Your task to perform on an android device: Open Yahoo.com Image 0: 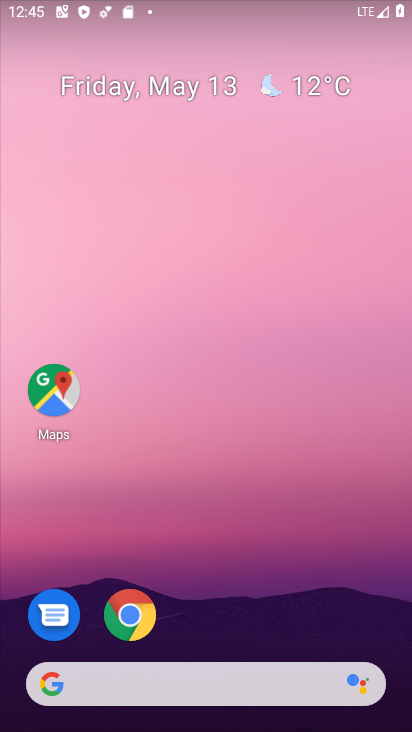
Step 0: click (117, 610)
Your task to perform on an android device: Open Yahoo.com Image 1: 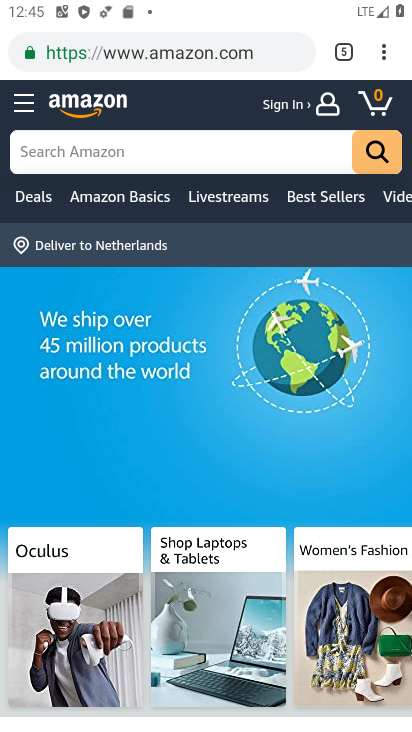
Step 1: click (338, 51)
Your task to perform on an android device: Open Yahoo.com Image 2: 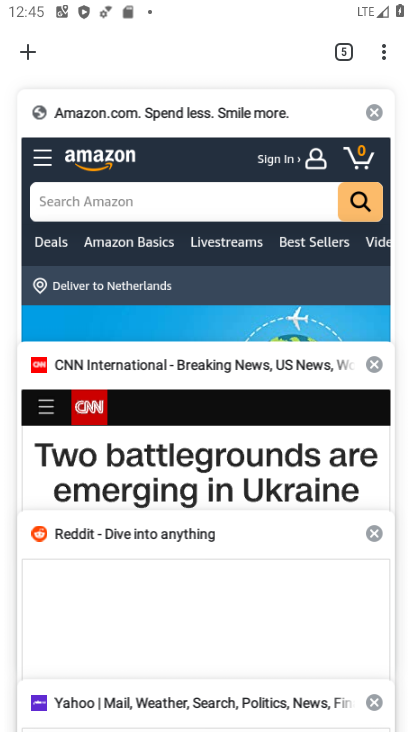
Step 2: click (199, 698)
Your task to perform on an android device: Open Yahoo.com Image 3: 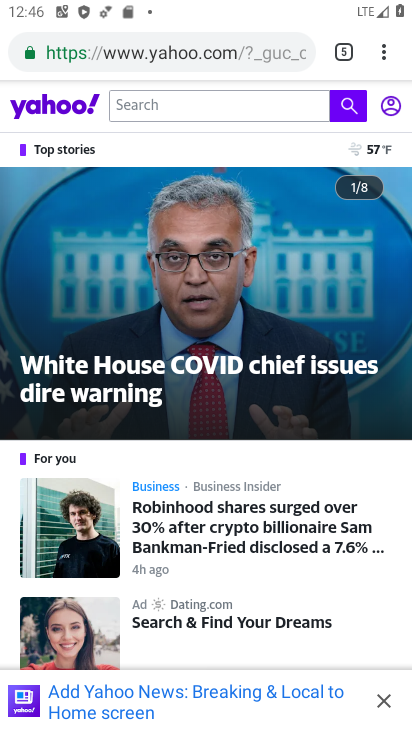
Step 3: task complete